Your task to perform on an android device: Turn on the flashlight Image 0: 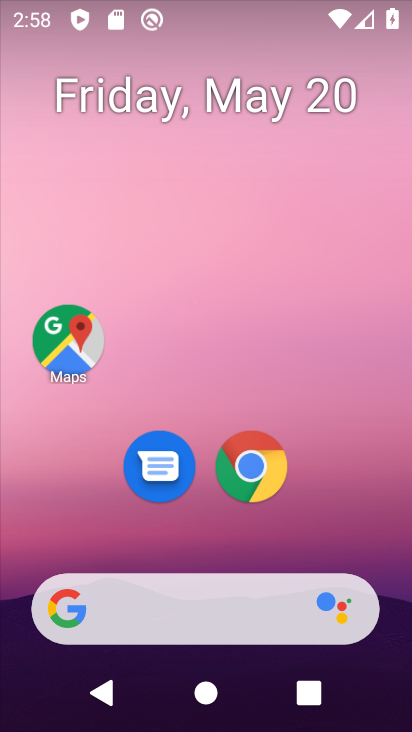
Step 0: drag from (203, 3) to (178, 500)
Your task to perform on an android device: Turn on the flashlight Image 1: 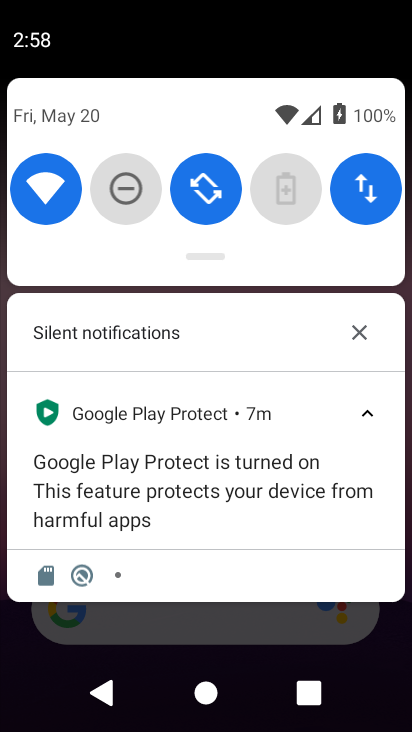
Step 1: drag from (231, 255) to (228, 551)
Your task to perform on an android device: Turn on the flashlight Image 2: 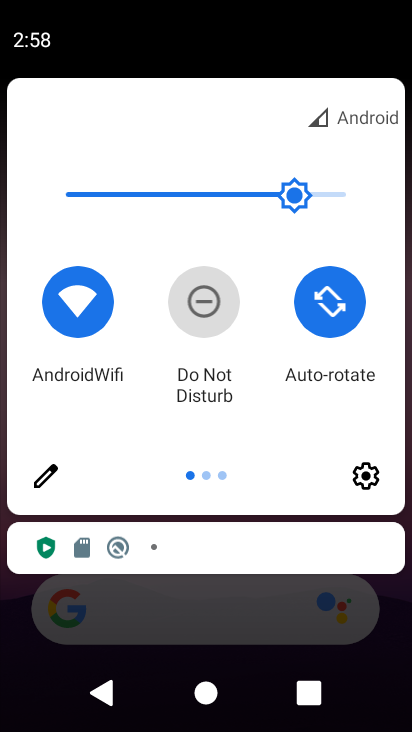
Step 2: drag from (348, 345) to (15, 400)
Your task to perform on an android device: Turn on the flashlight Image 3: 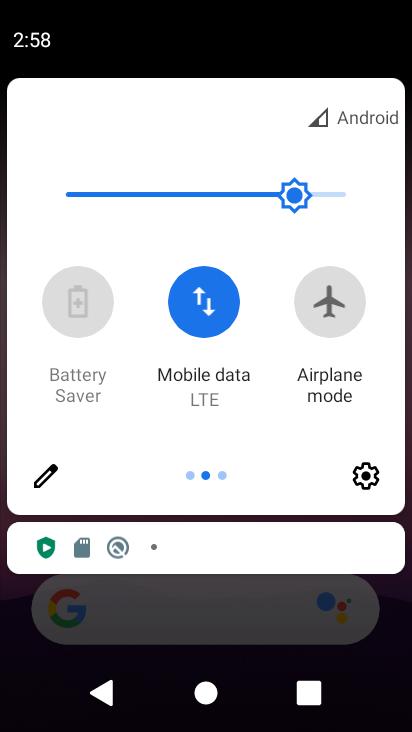
Step 3: drag from (350, 350) to (3, 373)
Your task to perform on an android device: Turn on the flashlight Image 4: 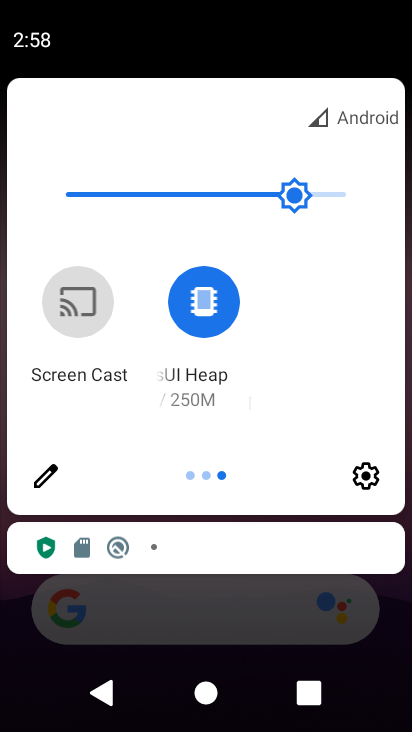
Step 4: click (56, 477)
Your task to perform on an android device: Turn on the flashlight Image 5: 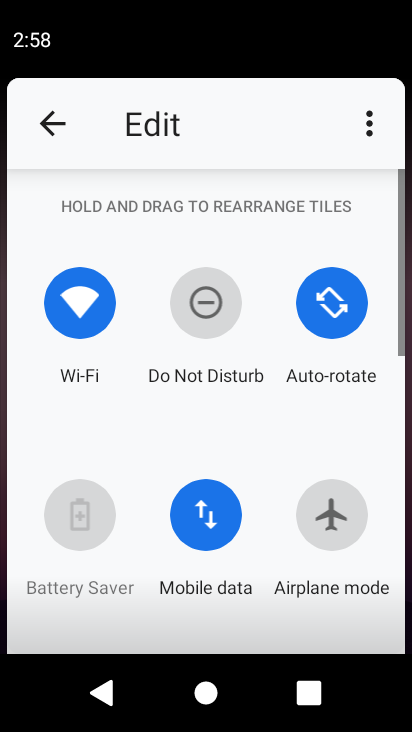
Step 5: task complete